Your task to perform on an android device: turn off notifications in google photos Image 0: 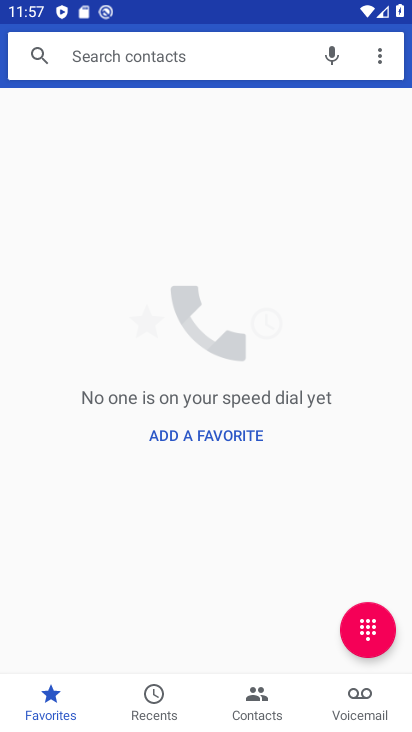
Step 0: press home button
Your task to perform on an android device: turn off notifications in google photos Image 1: 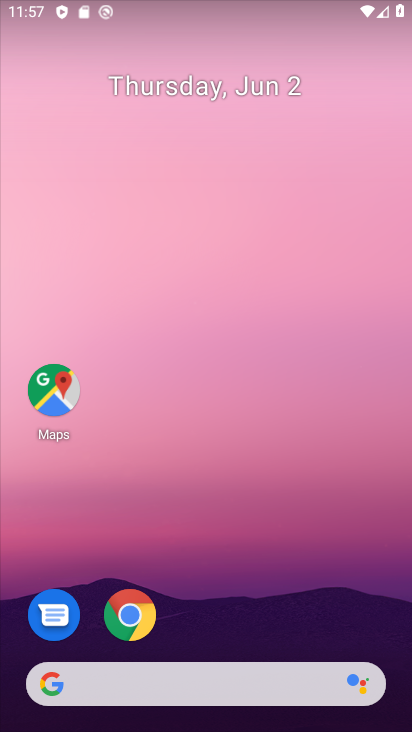
Step 1: drag from (171, 719) to (274, 105)
Your task to perform on an android device: turn off notifications in google photos Image 2: 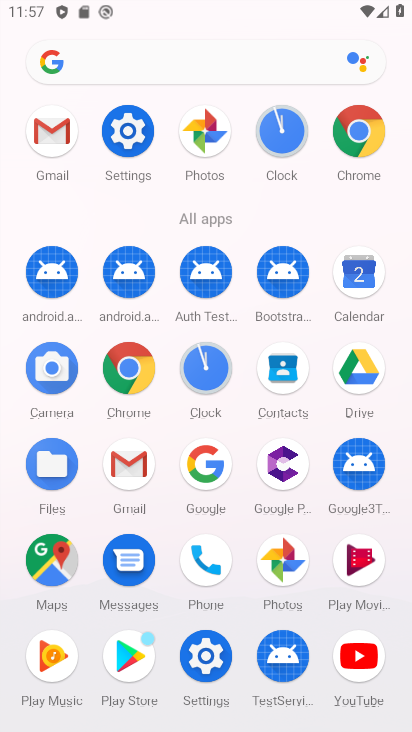
Step 2: click (286, 559)
Your task to perform on an android device: turn off notifications in google photos Image 3: 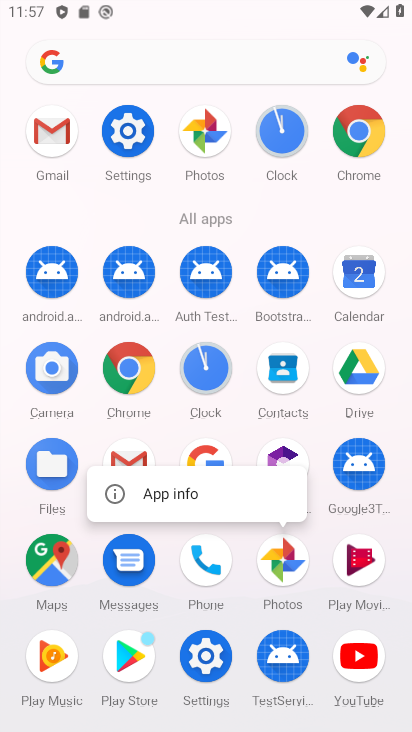
Step 3: click (249, 500)
Your task to perform on an android device: turn off notifications in google photos Image 4: 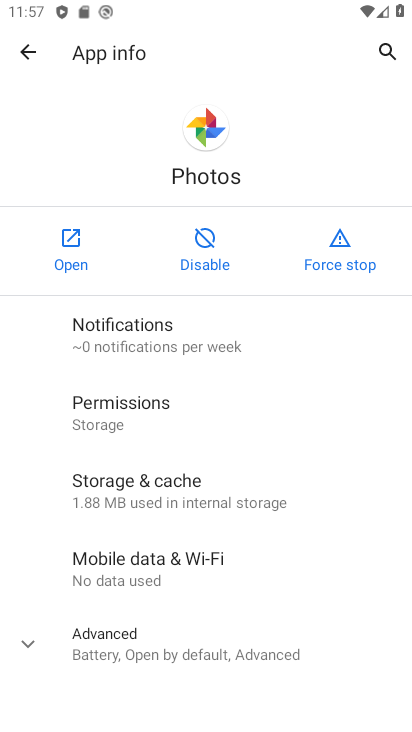
Step 4: click (206, 338)
Your task to perform on an android device: turn off notifications in google photos Image 5: 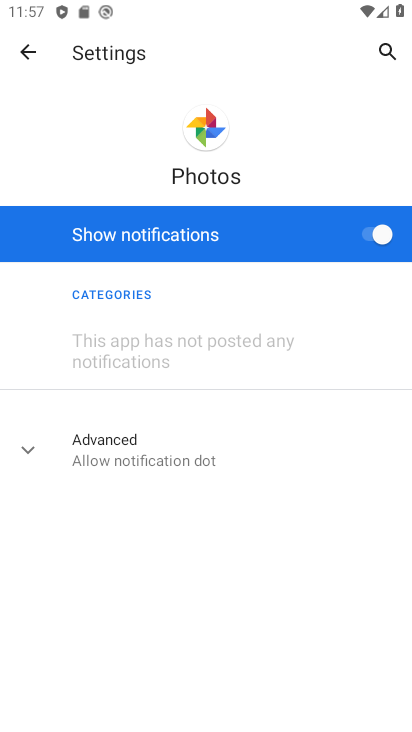
Step 5: click (381, 232)
Your task to perform on an android device: turn off notifications in google photos Image 6: 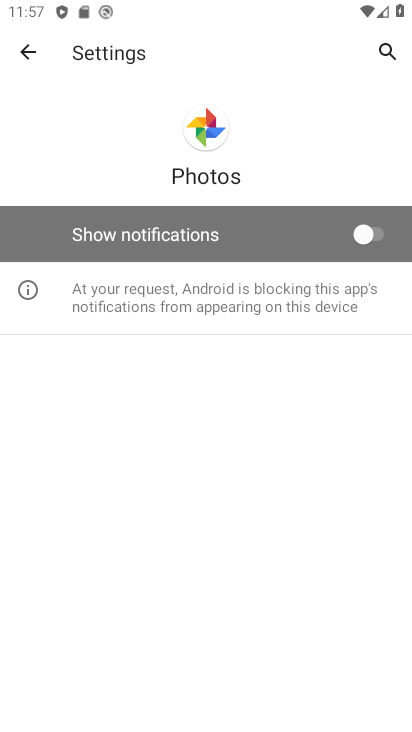
Step 6: task complete